Your task to perform on an android device: make emails show in primary in the gmail app Image 0: 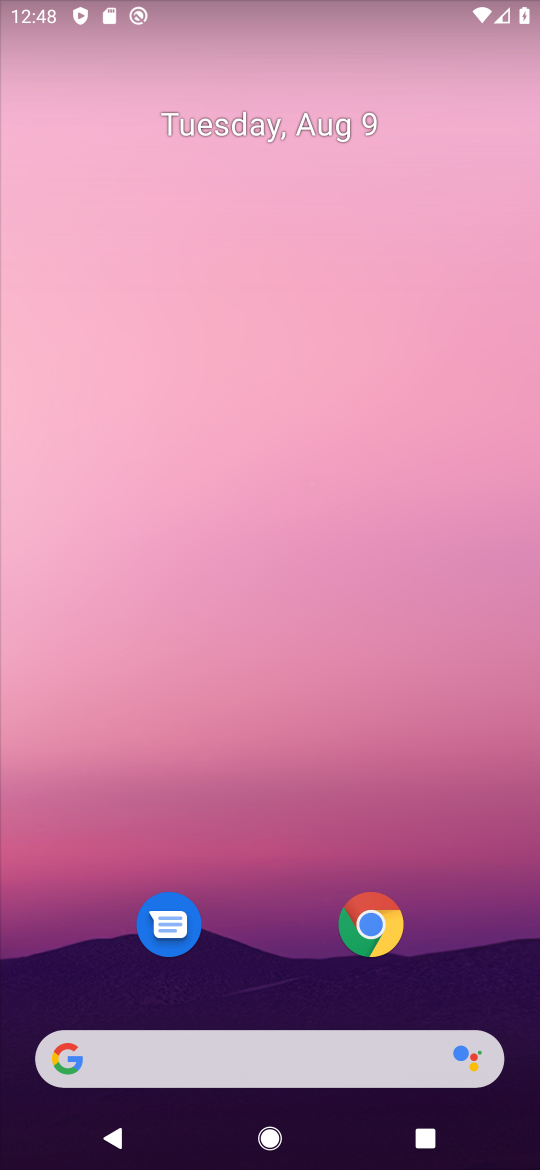
Step 0: drag from (171, 792) to (206, 182)
Your task to perform on an android device: make emails show in primary in the gmail app Image 1: 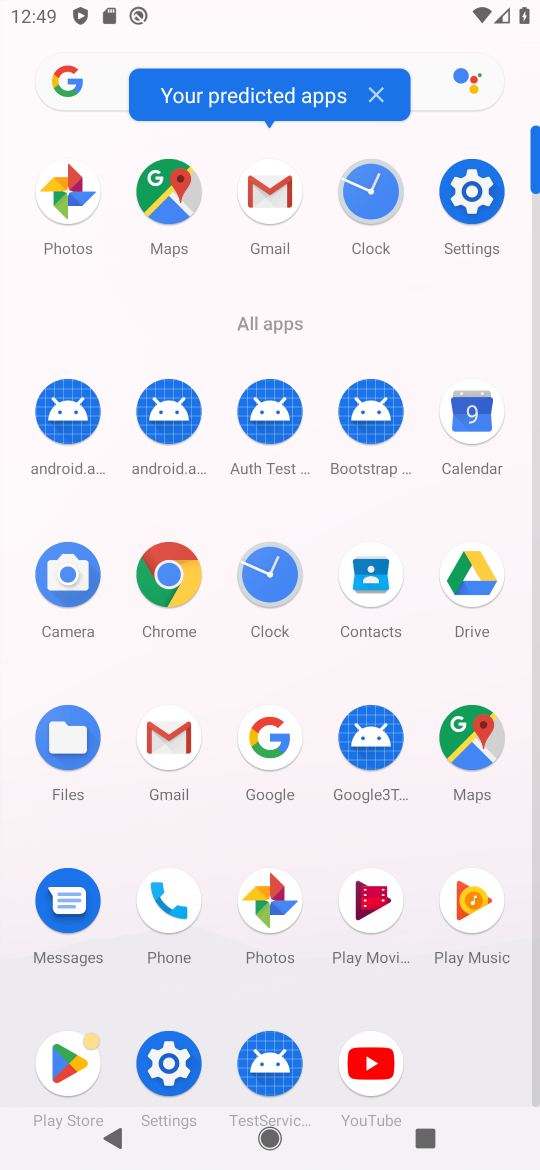
Step 1: click (183, 749)
Your task to perform on an android device: make emails show in primary in the gmail app Image 2: 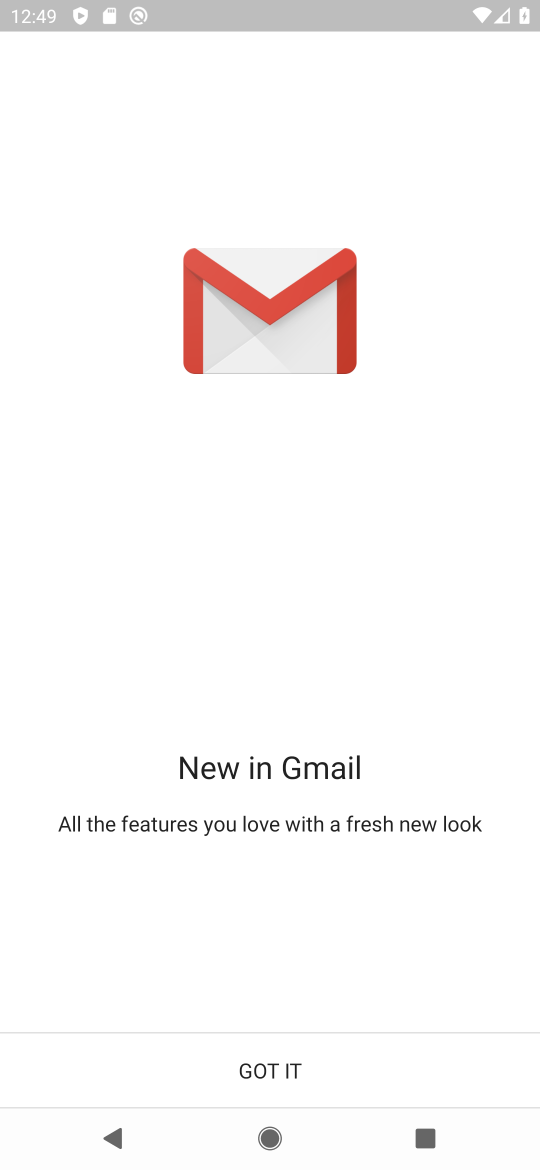
Step 2: click (265, 1037)
Your task to perform on an android device: make emails show in primary in the gmail app Image 3: 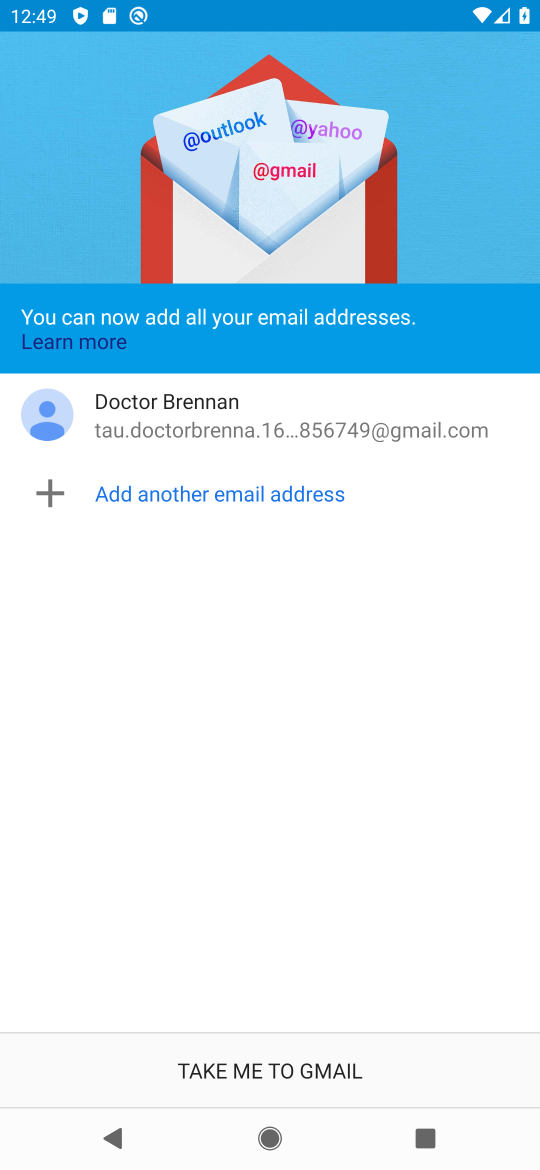
Step 3: click (297, 1066)
Your task to perform on an android device: make emails show in primary in the gmail app Image 4: 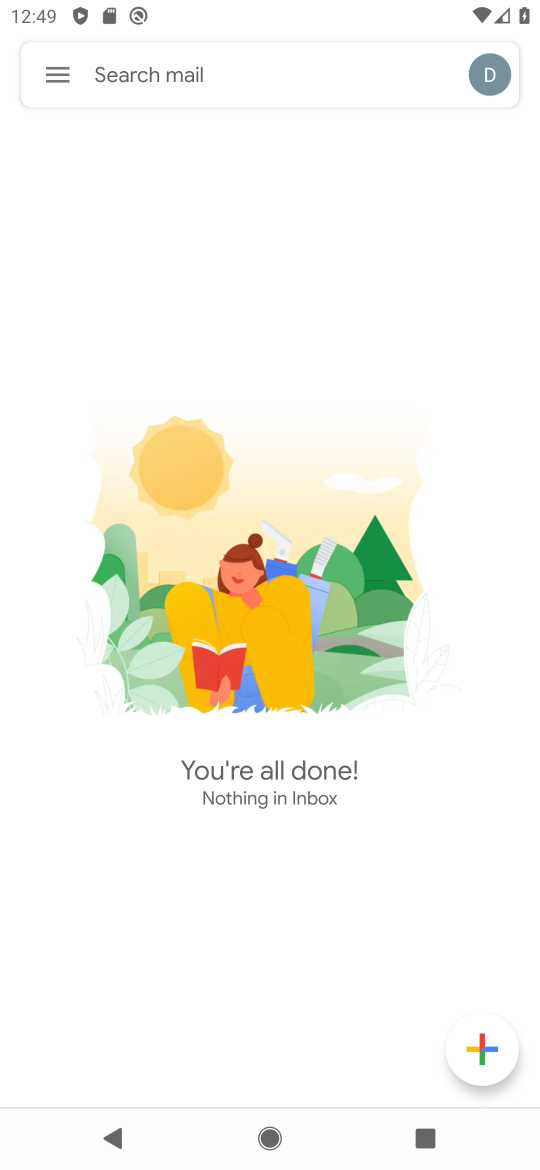
Step 4: click (53, 66)
Your task to perform on an android device: make emails show in primary in the gmail app Image 5: 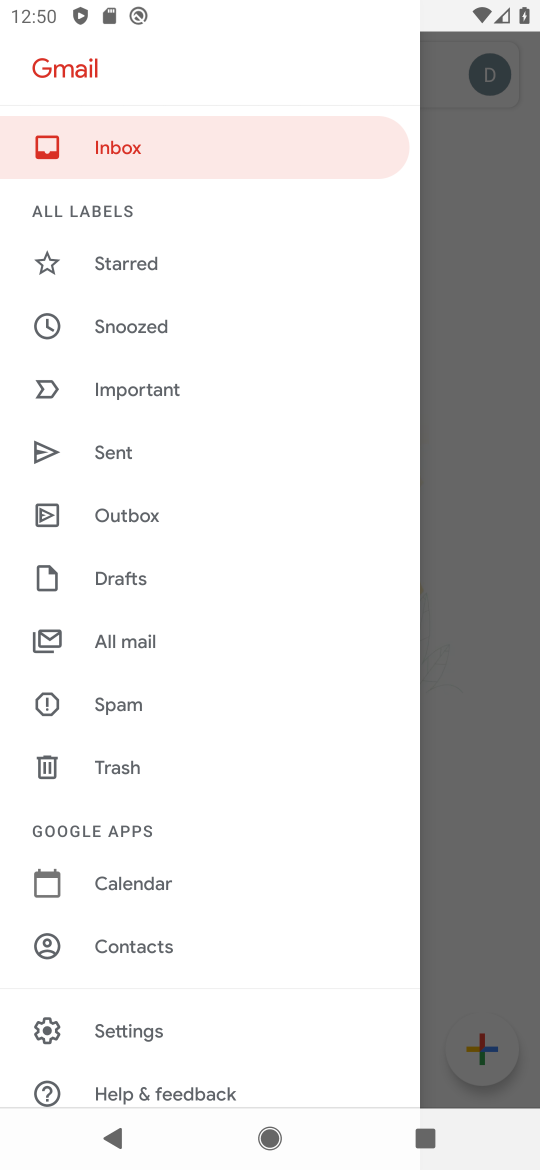
Step 5: click (162, 1027)
Your task to perform on an android device: make emails show in primary in the gmail app Image 6: 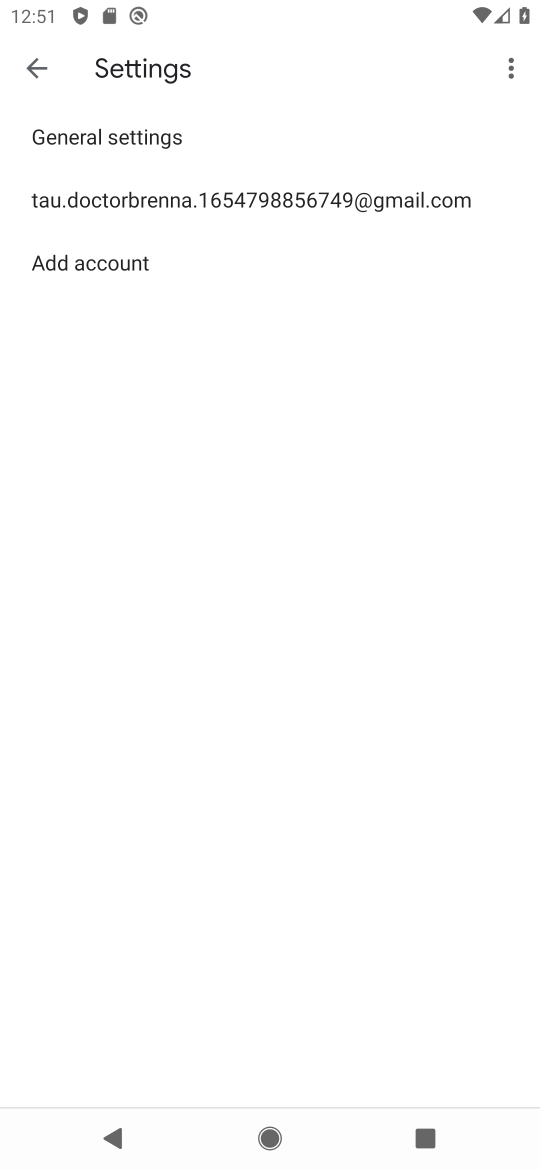
Step 6: click (211, 193)
Your task to perform on an android device: make emails show in primary in the gmail app Image 7: 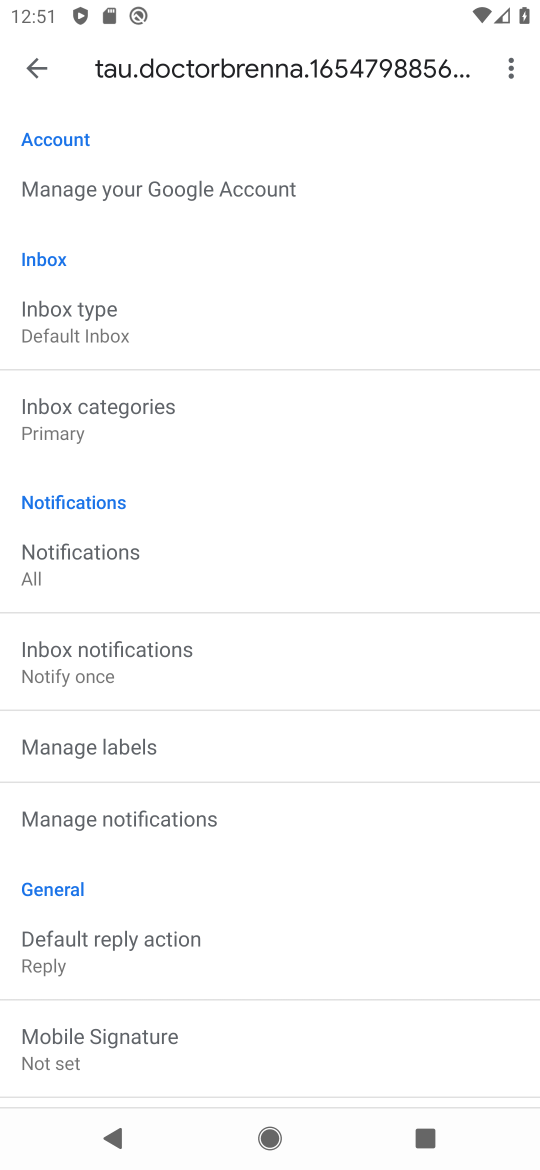
Step 7: click (128, 308)
Your task to perform on an android device: make emails show in primary in the gmail app Image 8: 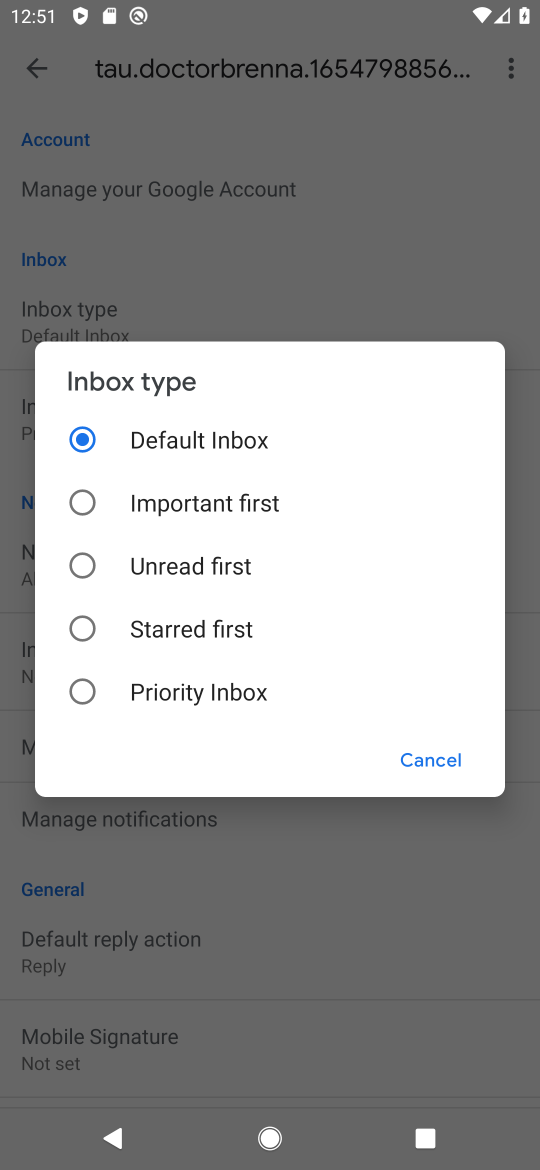
Step 8: click (164, 681)
Your task to perform on an android device: make emails show in primary in the gmail app Image 9: 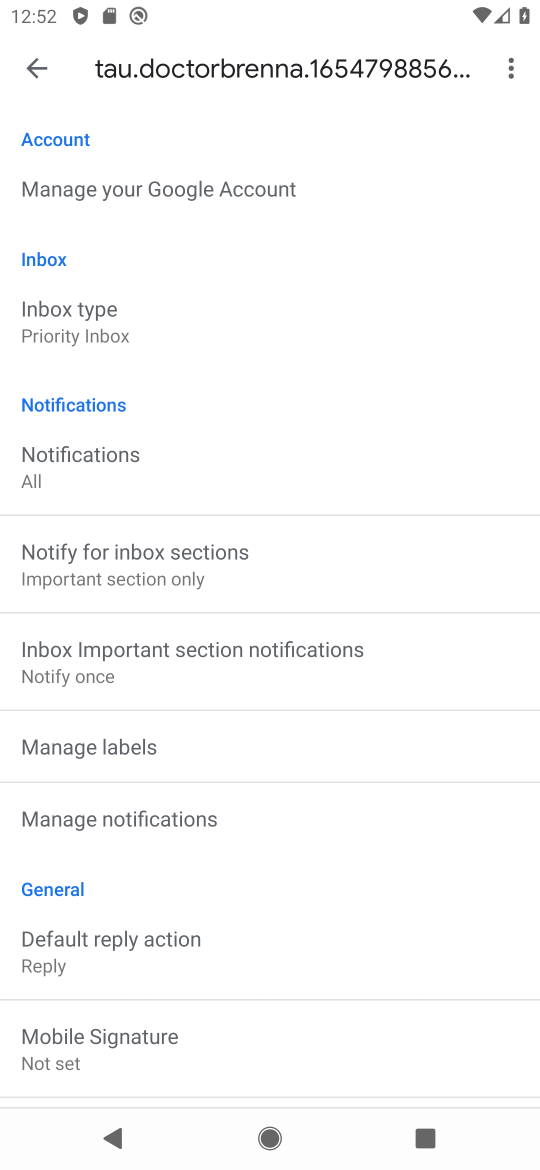
Step 9: task complete